Your task to perform on an android device: Open Youtube and go to "Your channel" Image 0: 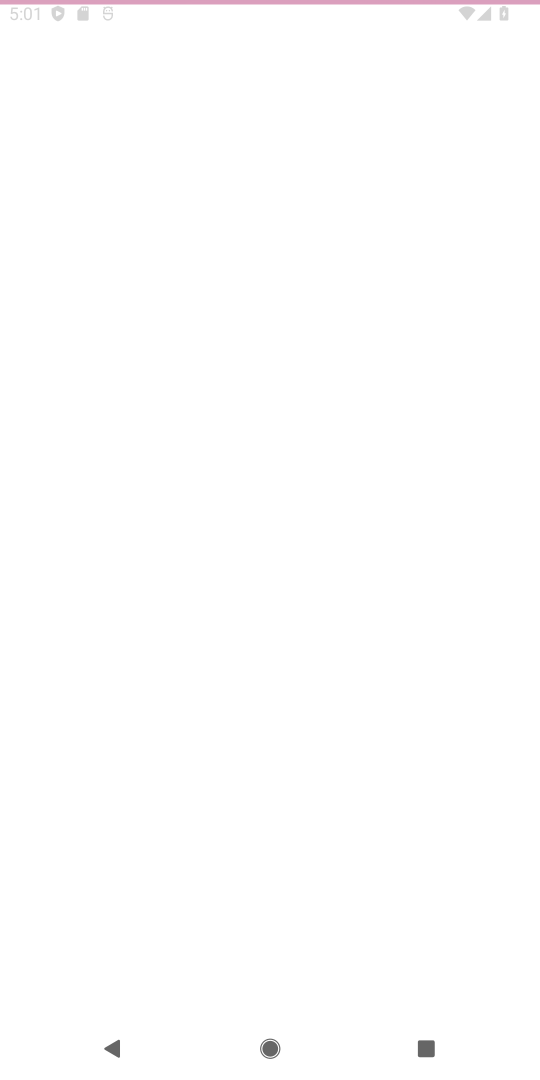
Step 0: press home button
Your task to perform on an android device: Open Youtube and go to "Your channel" Image 1: 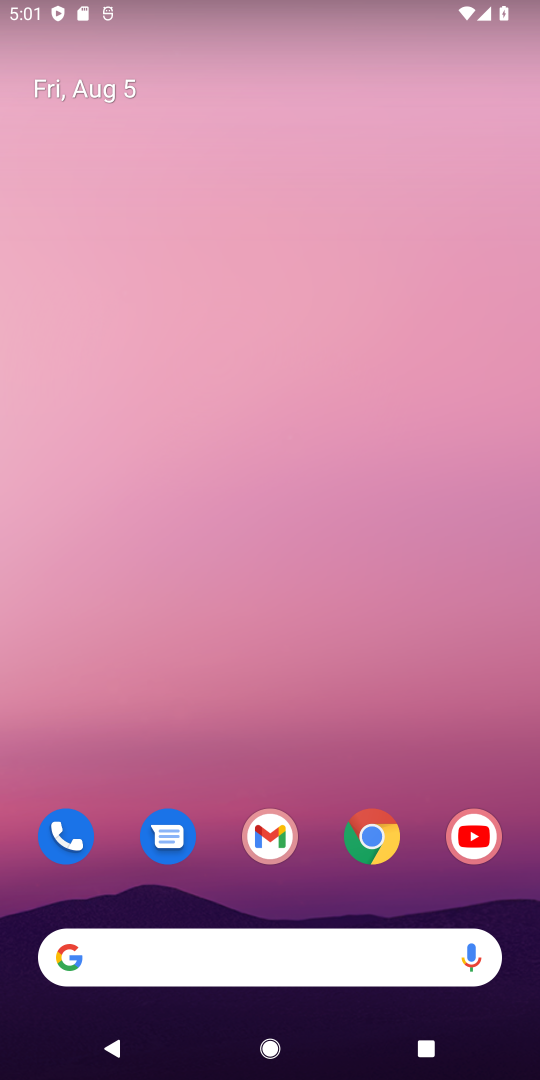
Step 1: click (471, 830)
Your task to perform on an android device: Open Youtube and go to "Your channel" Image 2: 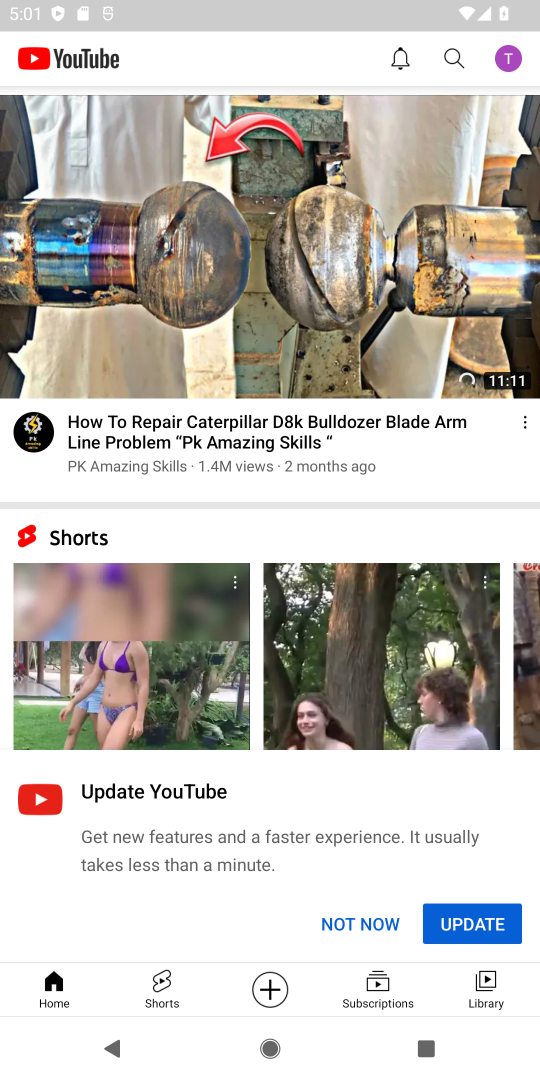
Step 2: click (506, 64)
Your task to perform on an android device: Open Youtube and go to "Your channel" Image 3: 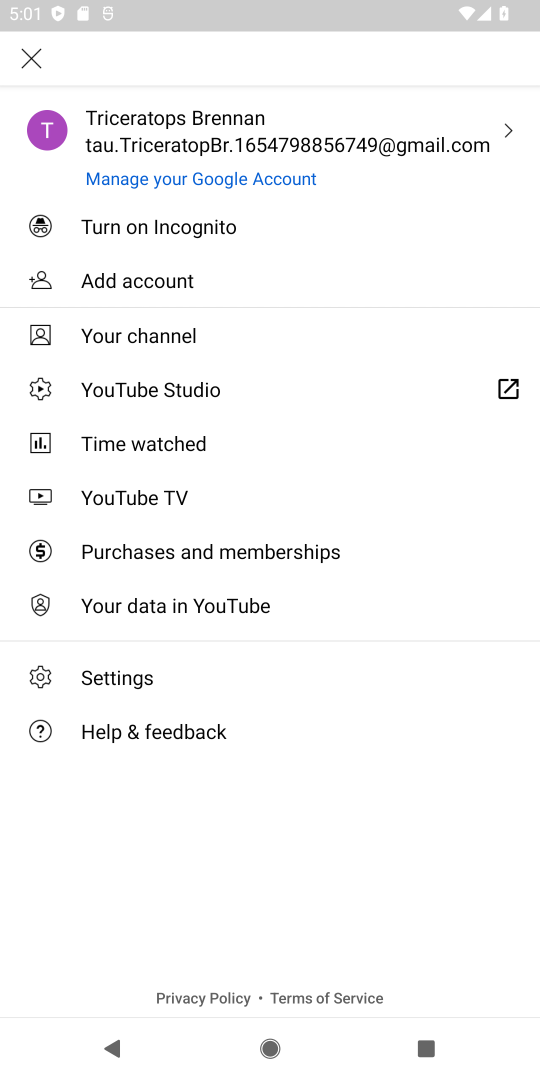
Step 3: click (197, 330)
Your task to perform on an android device: Open Youtube and go to "Your channel" Image 4: 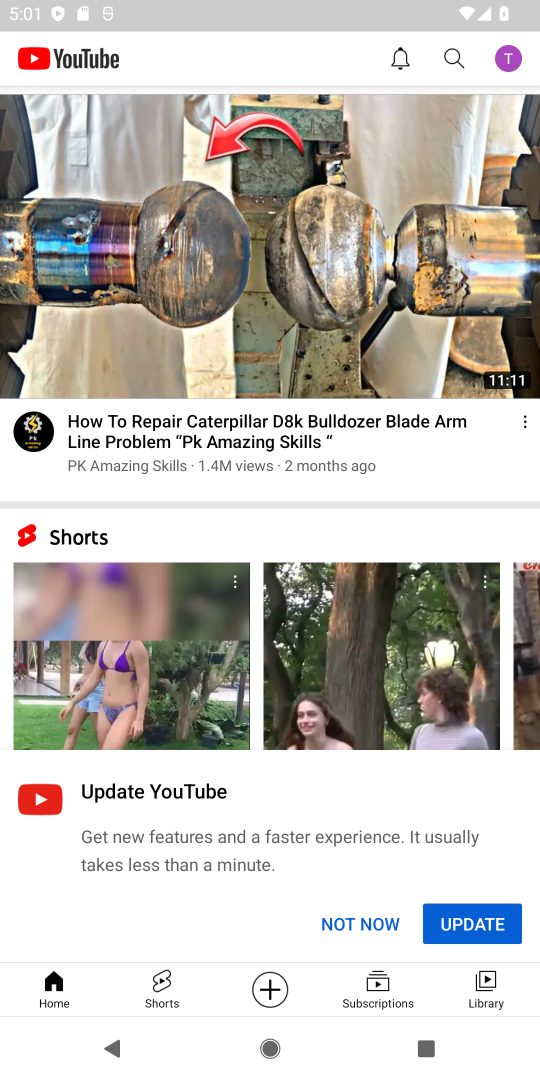
Step 4: click (356, 918)
Your task to perform on an android device: Open Youtube and go to "Your channel" Image 5: 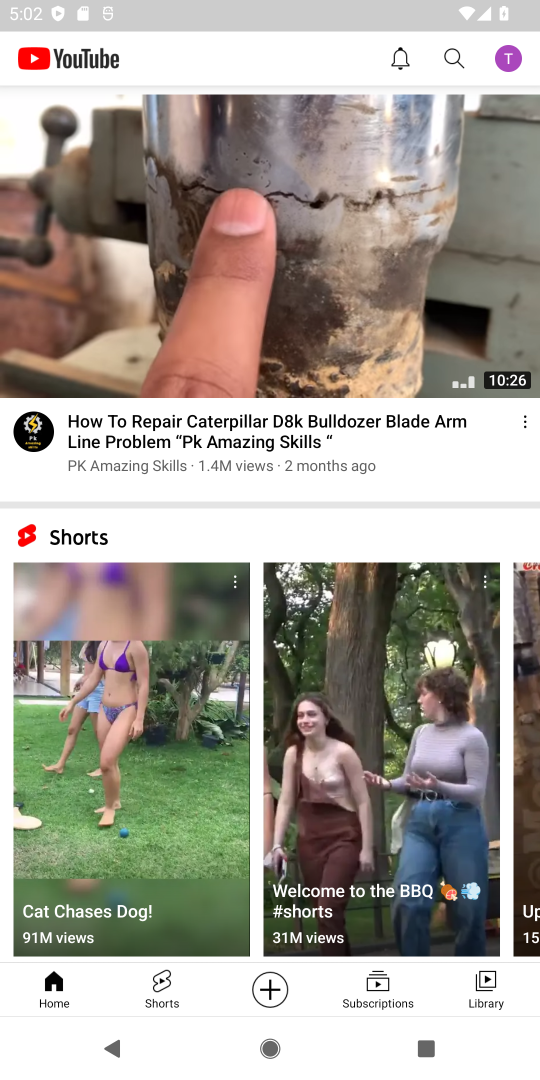
Step 5: click (513, 57)
Your task to perform on an android device: Open Youtube and go to "Your channel" Image 6: 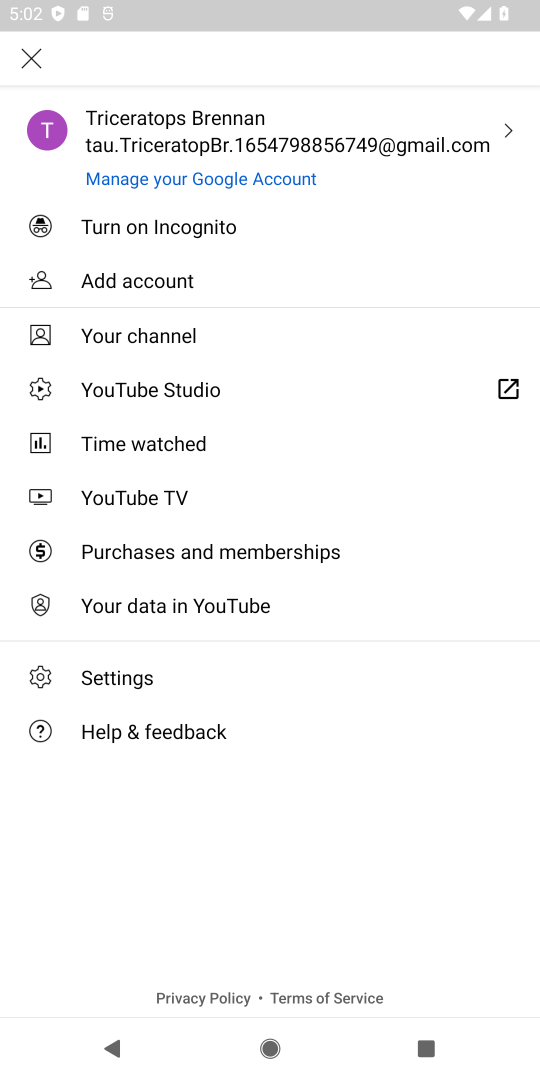
Step 6: click (211, 331)
Your task to perform on an android device: Open Youtube and go to "Your channel" Image 7: 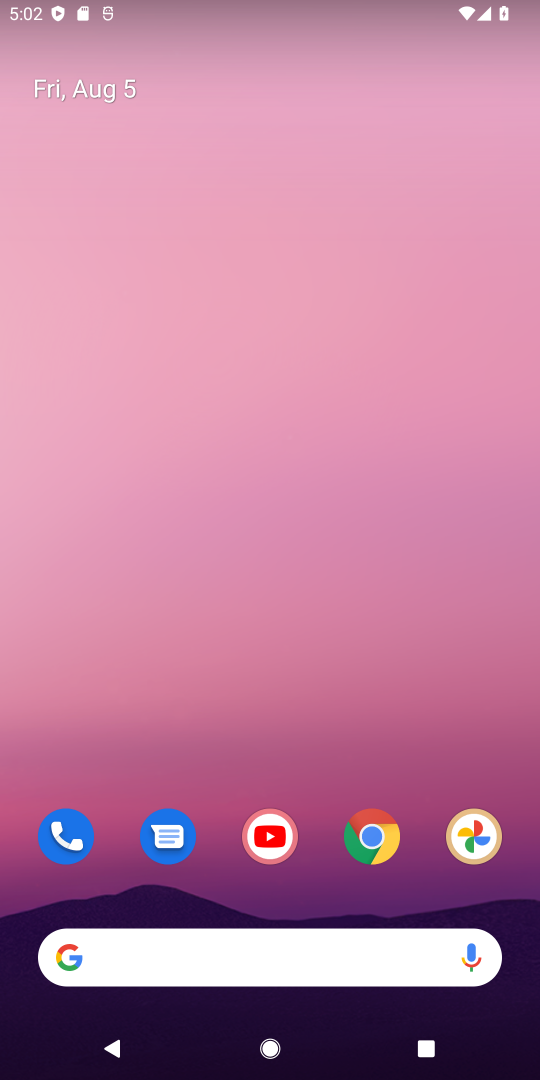
Step 7: task complete